Your task to perform on an android device: turn on the 24-hour format for clock Image 0: 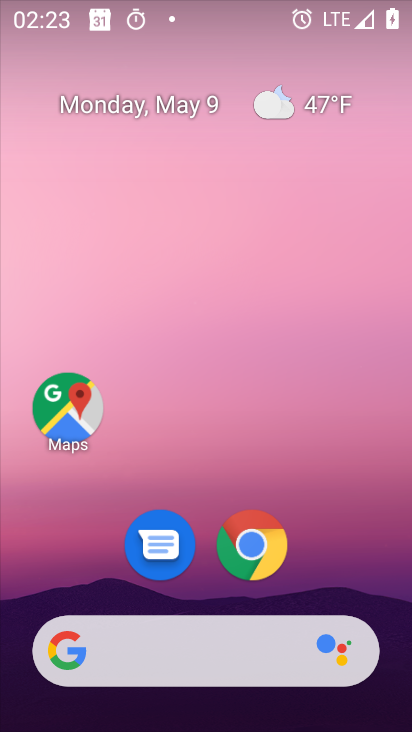
Step 0: drag from (355, 619) to (386, 15)
Your task to perform on an android device: turn on the 24-hour format for clock Image 1: 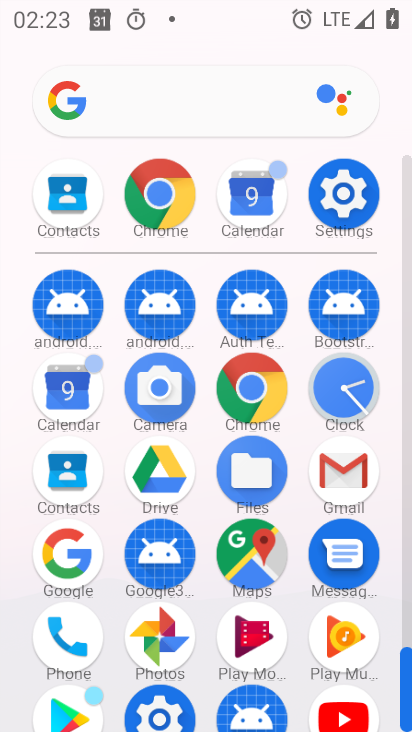
Step 1: click (334, 381)
Your task to perform on an android device: turn on the 24-hour format for clock Image 2: 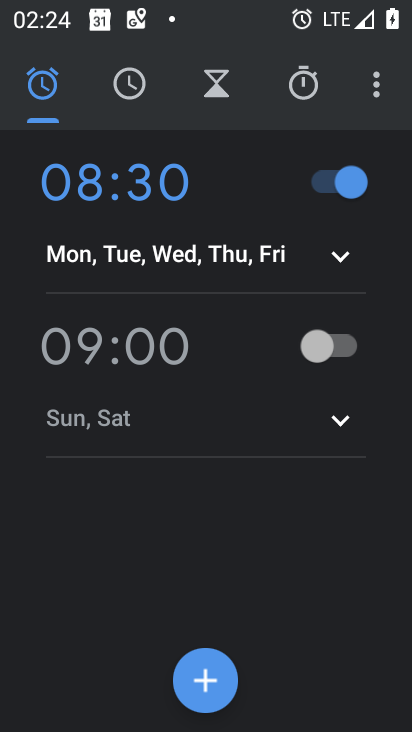
Step 2: click (377, 86)
Your task to perform on an android device: turn on the 24-hour format for clock Image 3: 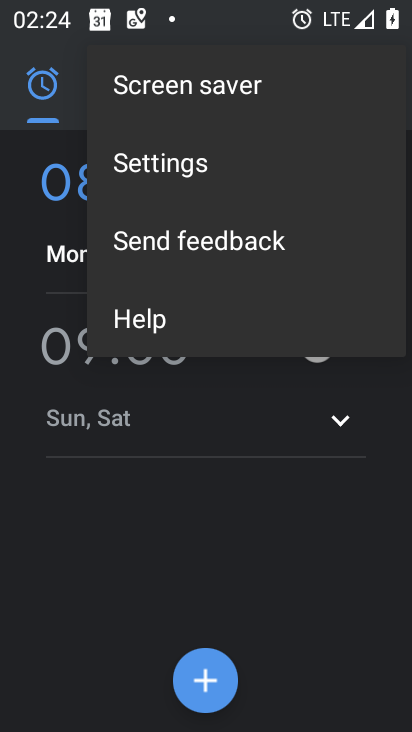
Step 3: click (256, 172)
Your task to perform on an android device: turn on the 24-hour format for clock Image 4: 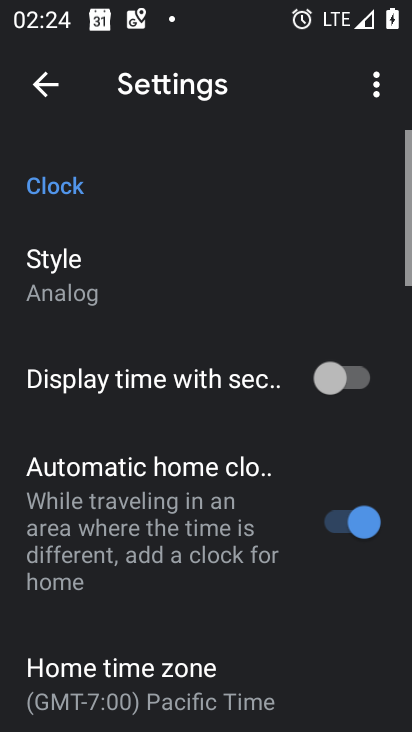
Step 4: drag from (263, 624) to (260, 31)
Your task to perform on an android device: turn on the 24-hour format for clock Image 5: 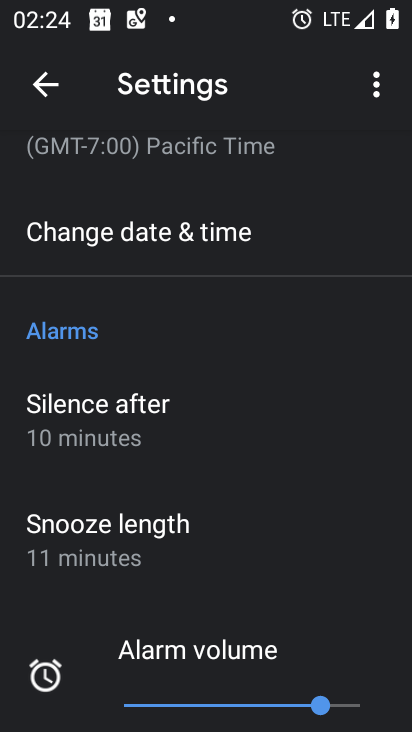
Step 5: click (195, 247)
Your task to perform on an android device: turn on the 24-hour format for clock Image 6: 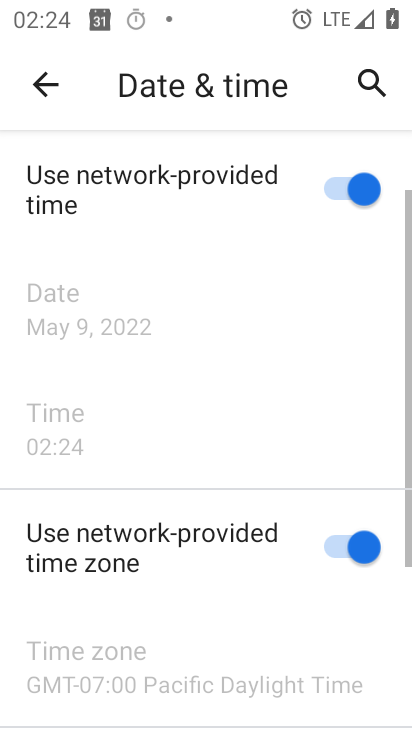
Step 6: task complete